Your task to perform on an android device: turn vacation reply on in the gmail app Image 0: 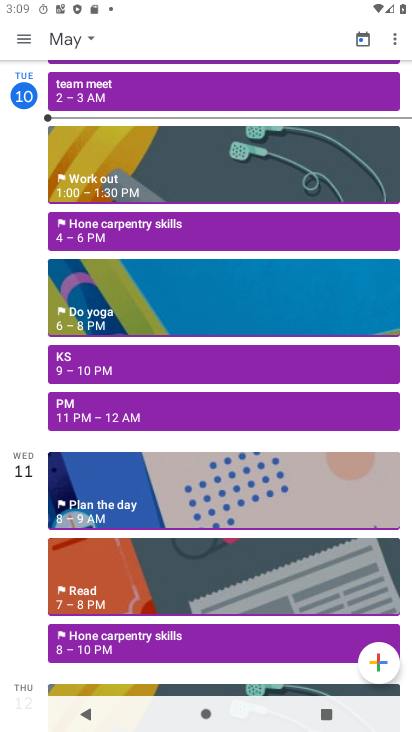
Step 0: press home button
Your task to perform on an android device: turn vacation reply on in the gmail app Image 1: 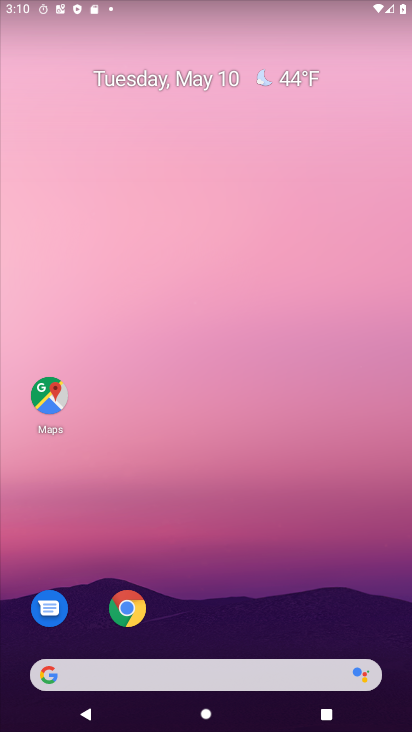
Step 1: drag from (282, 602) to (362, 5)
Your task to perform on an android device: turn vacation reply on in the gmail app Image 2: 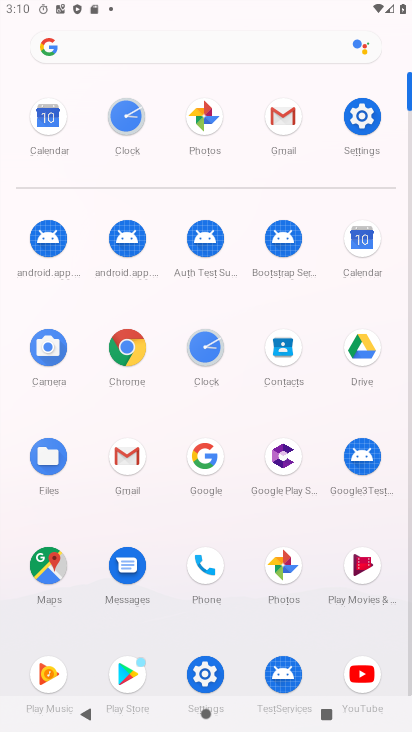
Step 2: click (290, 127)
Your task to perform on an android device: turn vacation reply on in the gmail app Image 3: 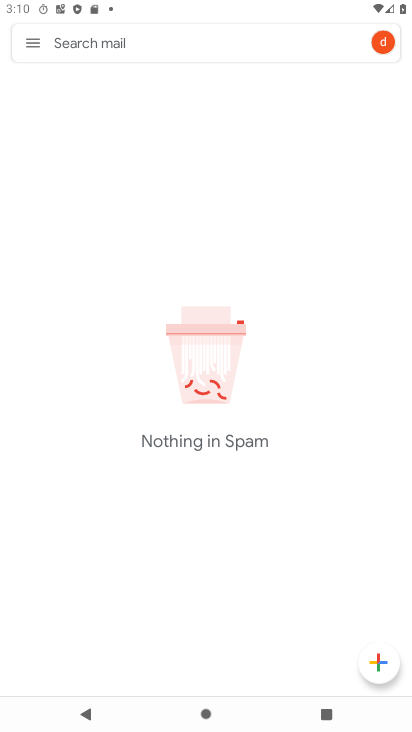
Step 3: click (32, 48)
Your task to perform on an android device: turn vacation reply on in the gmail app Image 4: 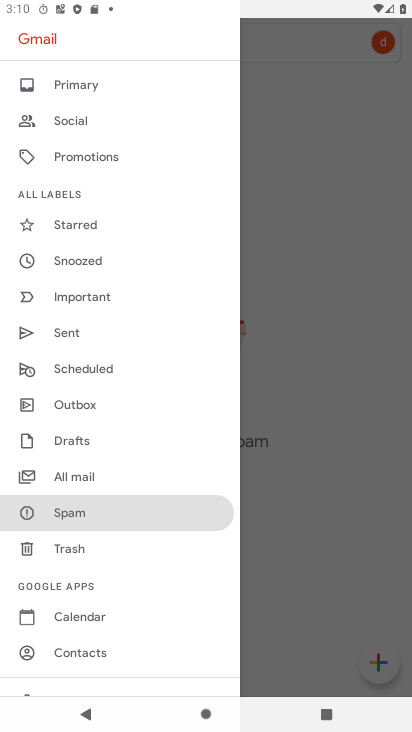
Step 4: drag from (148, 639) to (166, 470)
Your task to perform on an android device: turn vacation reply on in the gmail app Image 5: 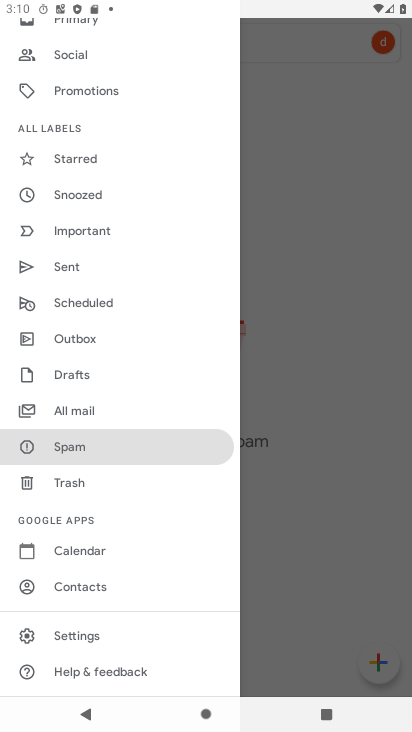
Step 5: click (81, 633)
Your task to perform on an android device: turn vacation reply on in the gmail app Image 6: 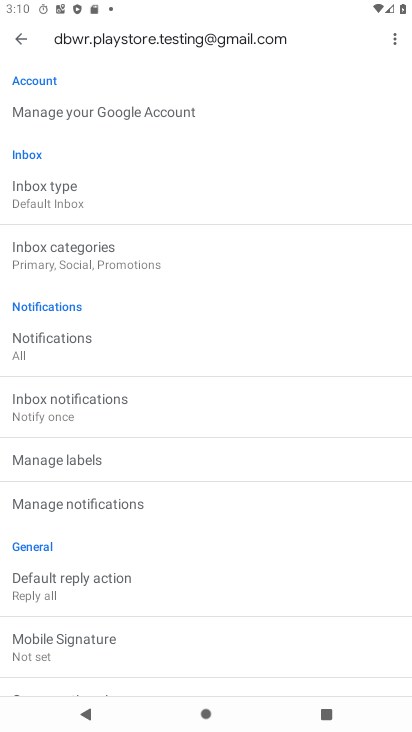
Step 6: drag from (172, 606) to (175, 395)
Your task to perform on an android device: turn vacation reply on in the gmail app Image 7: 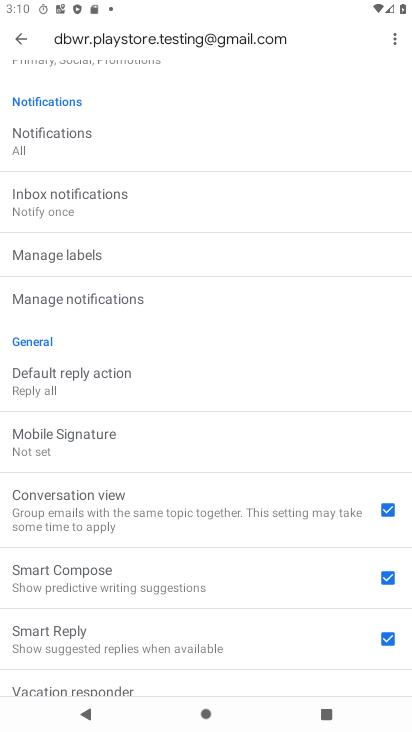
Step 7: drag from (93, 609) to (127, 394)
Your task to perform on an android device: turn vacation reply on in the gmail app Image 8: 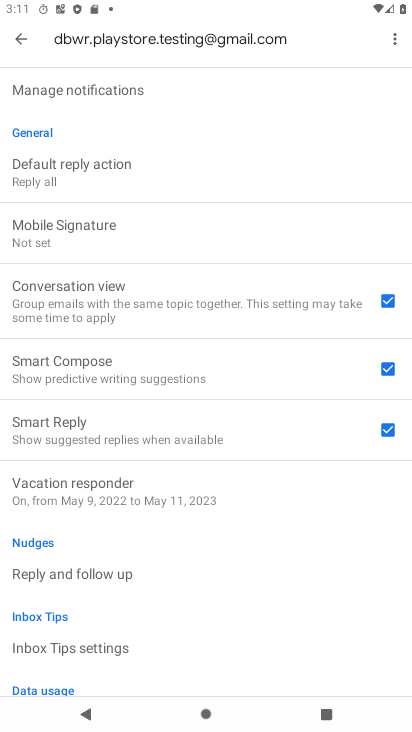
Step 8: click (86, 495)
Your task to perform on an android device: turn vacation reply on in the gmail app Image 9: 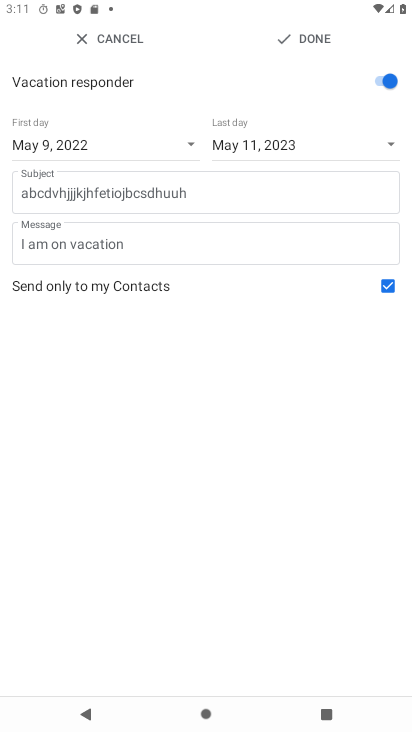
Step 9: click (325, 38)
Your task to perform on an android device: turn vacation reply on in the gmail app Image 10: 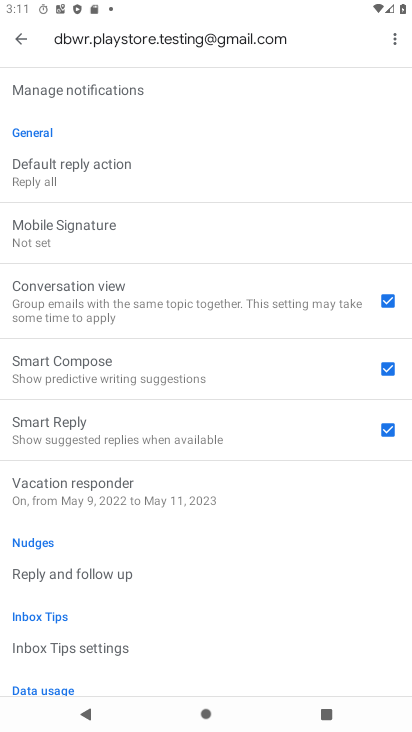
Step 10: task complete